Your task to perform on an android device: open app "Google Find My Device" (install if not already installed) Image 0: 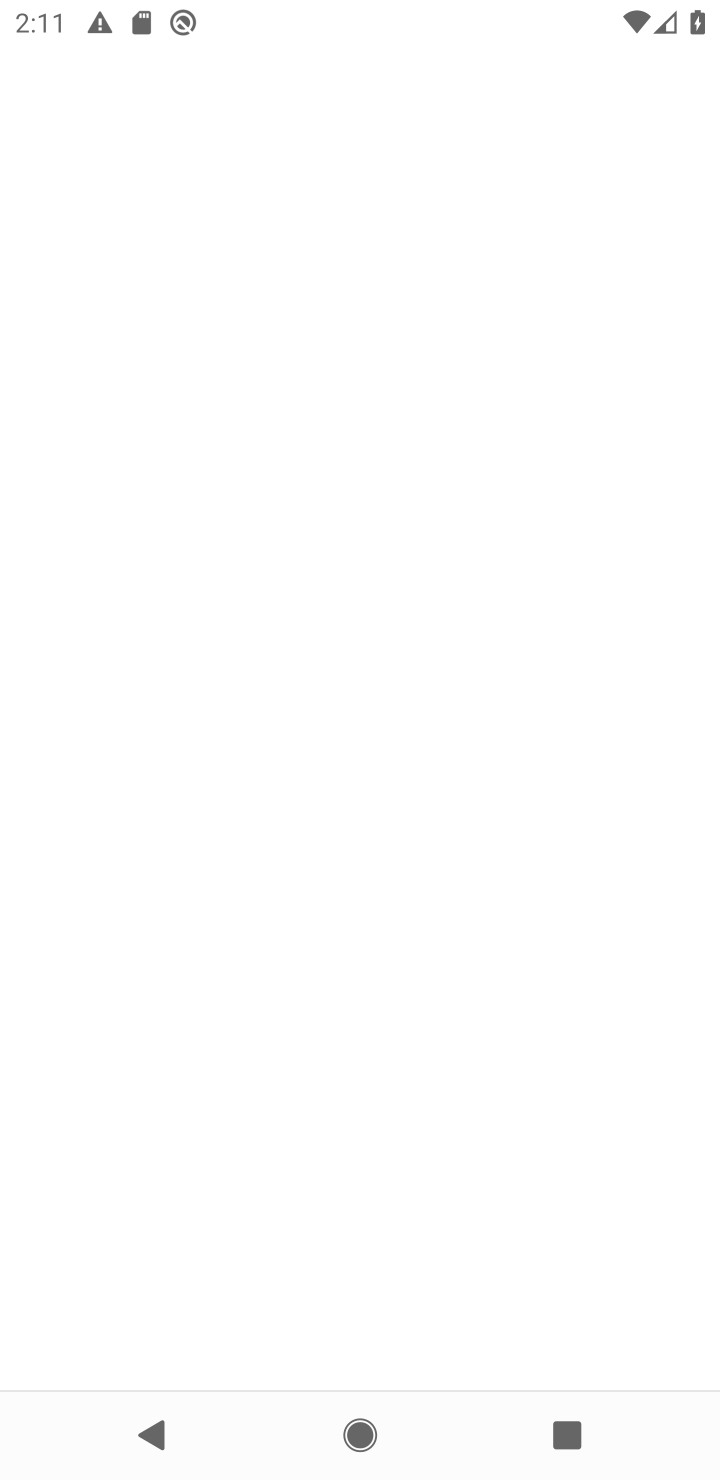
Step 0: press home button
Your task to perform on an android device: open app "Google Find My Device" (install if not already installed) Image 1: 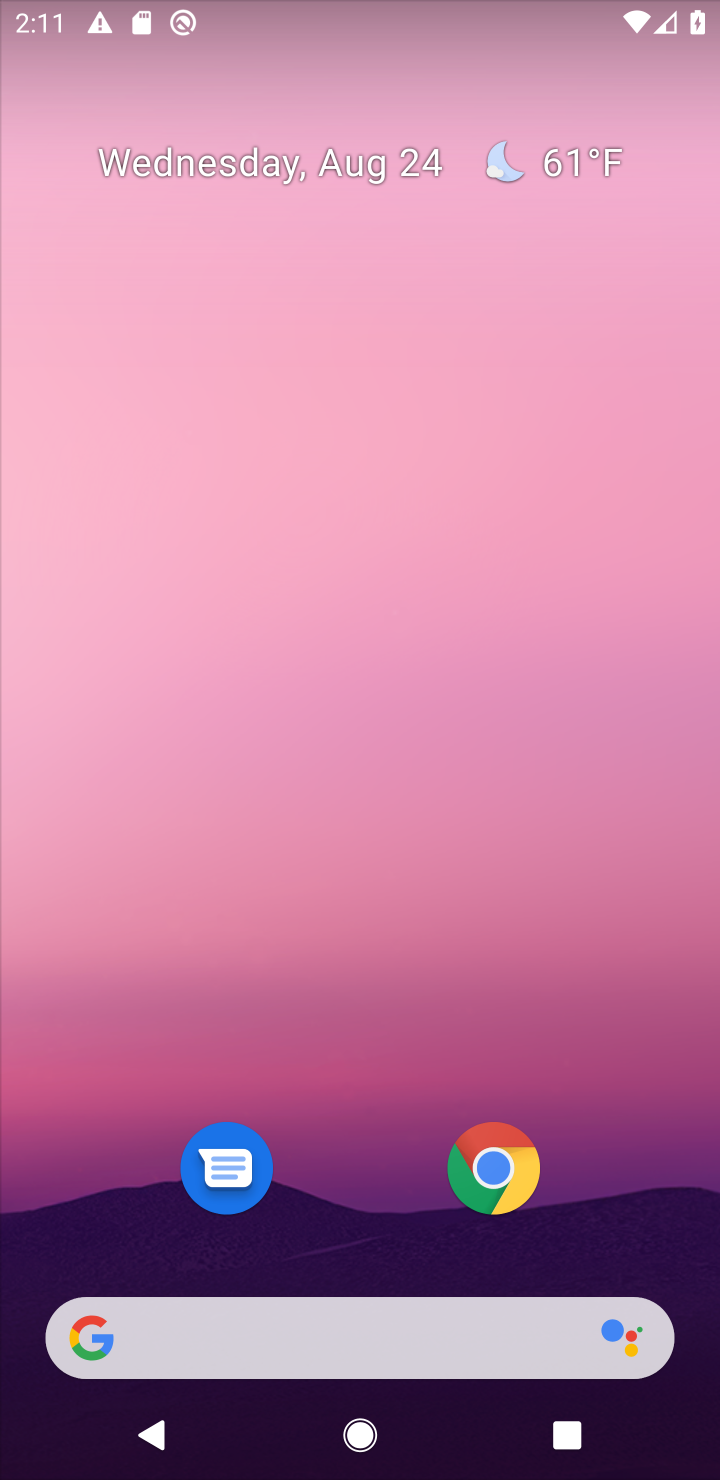
Step 1: drag from (689, 1278) to (533, 50)
Your task to perform on an android device: open app "Google Find My Device" (install if not already installed) Image 2: 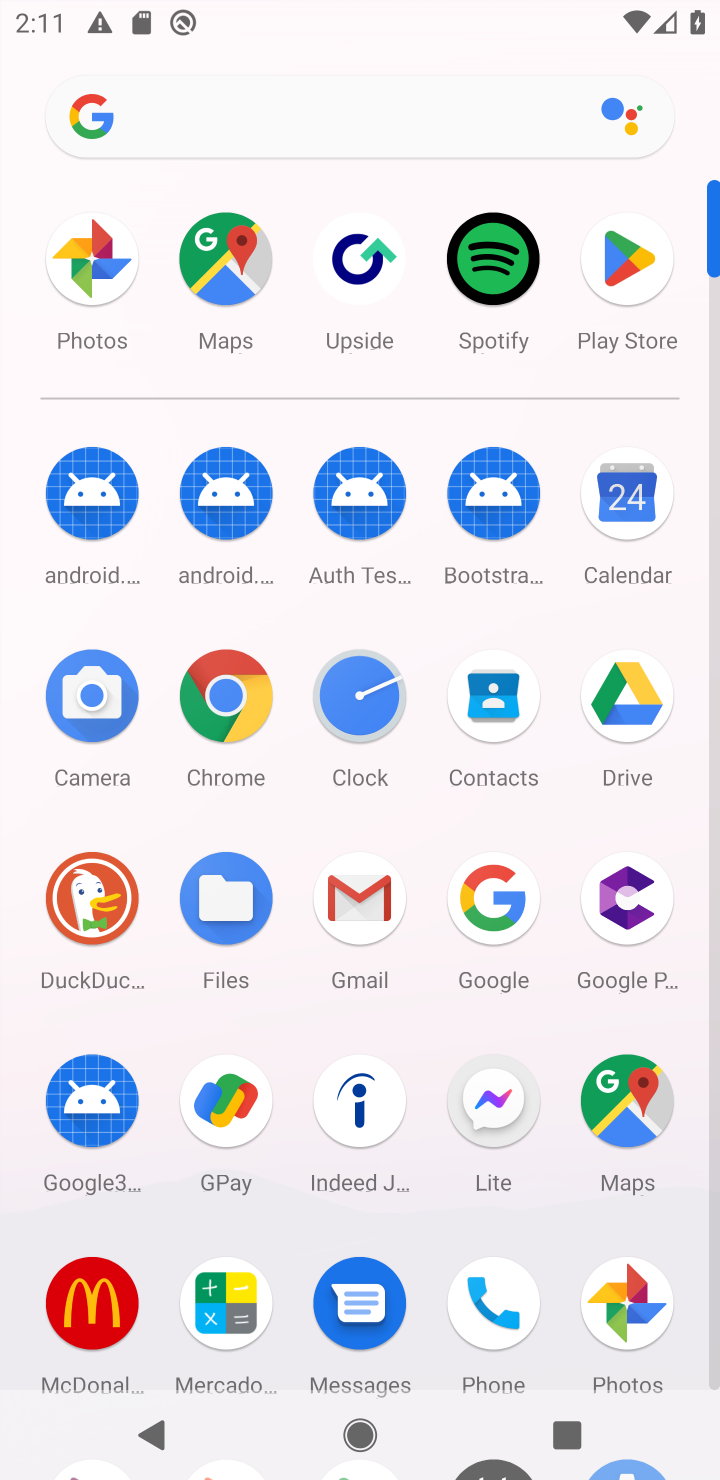
Step 2: click (718, 1313)
Your task to perform on an android device: open app "Google Find My Device" (install if not already installed) Image 3: 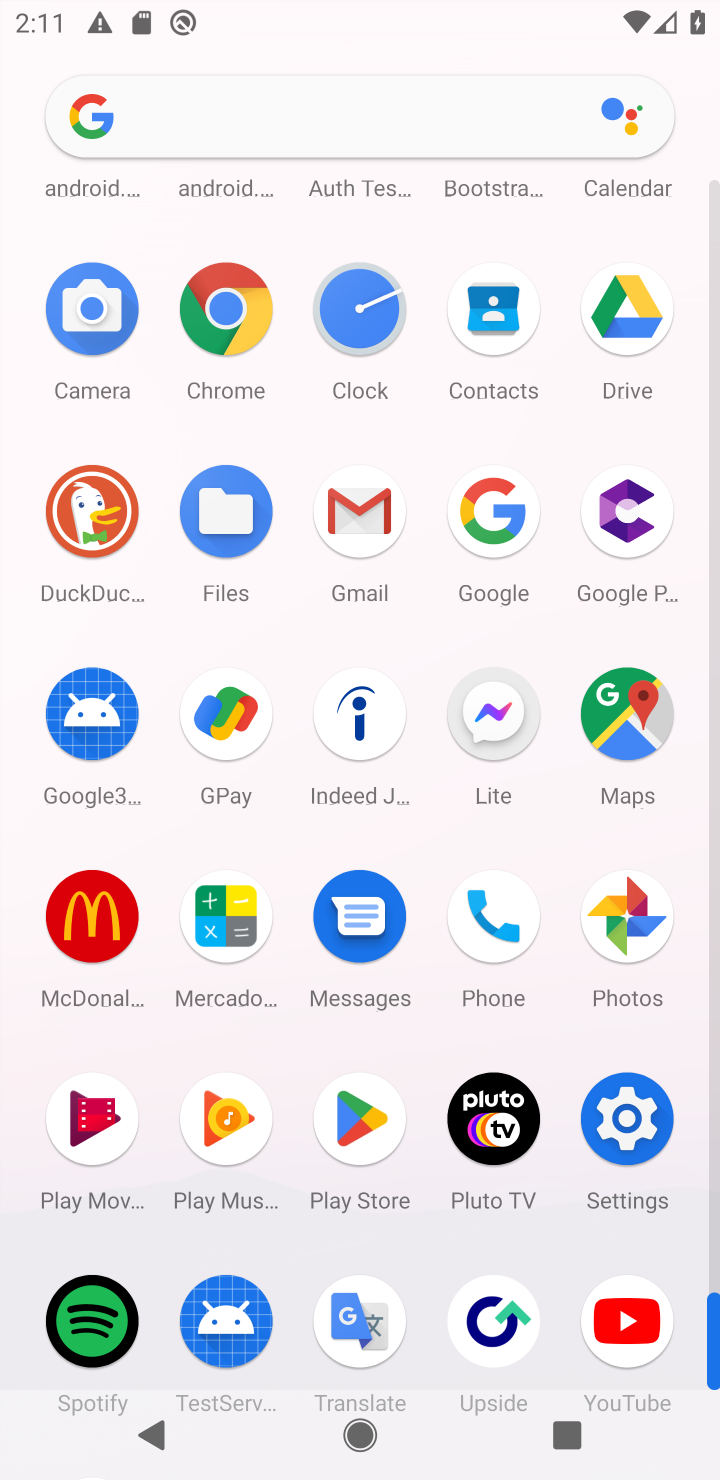
Step 3: click (366, 1116)
Your task to perform on an android device: open app "Google Find My Device" (install if not already installed) Image 4: 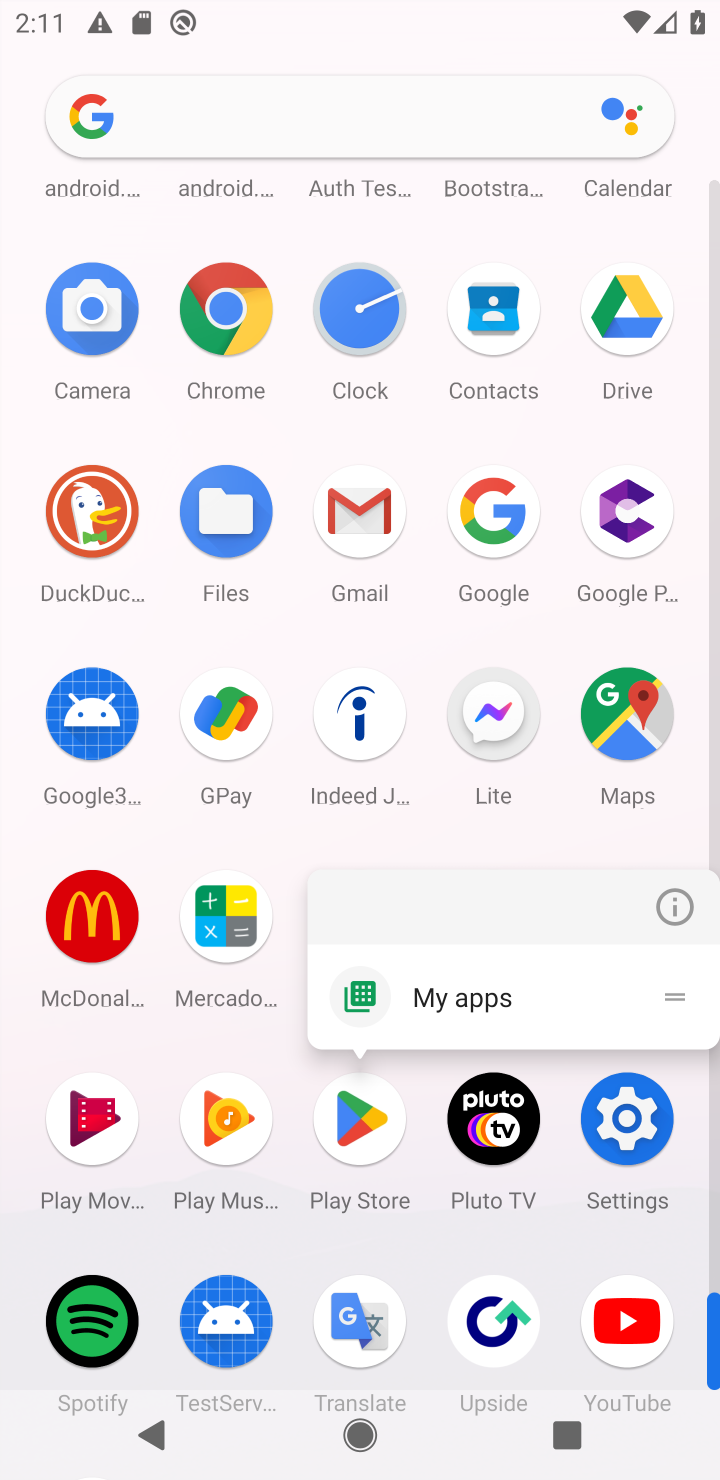
Step 4: click (364, 1114)
Your task to perform on an android device: open app "Google Find My Device" (install if not already installed) Image 5: 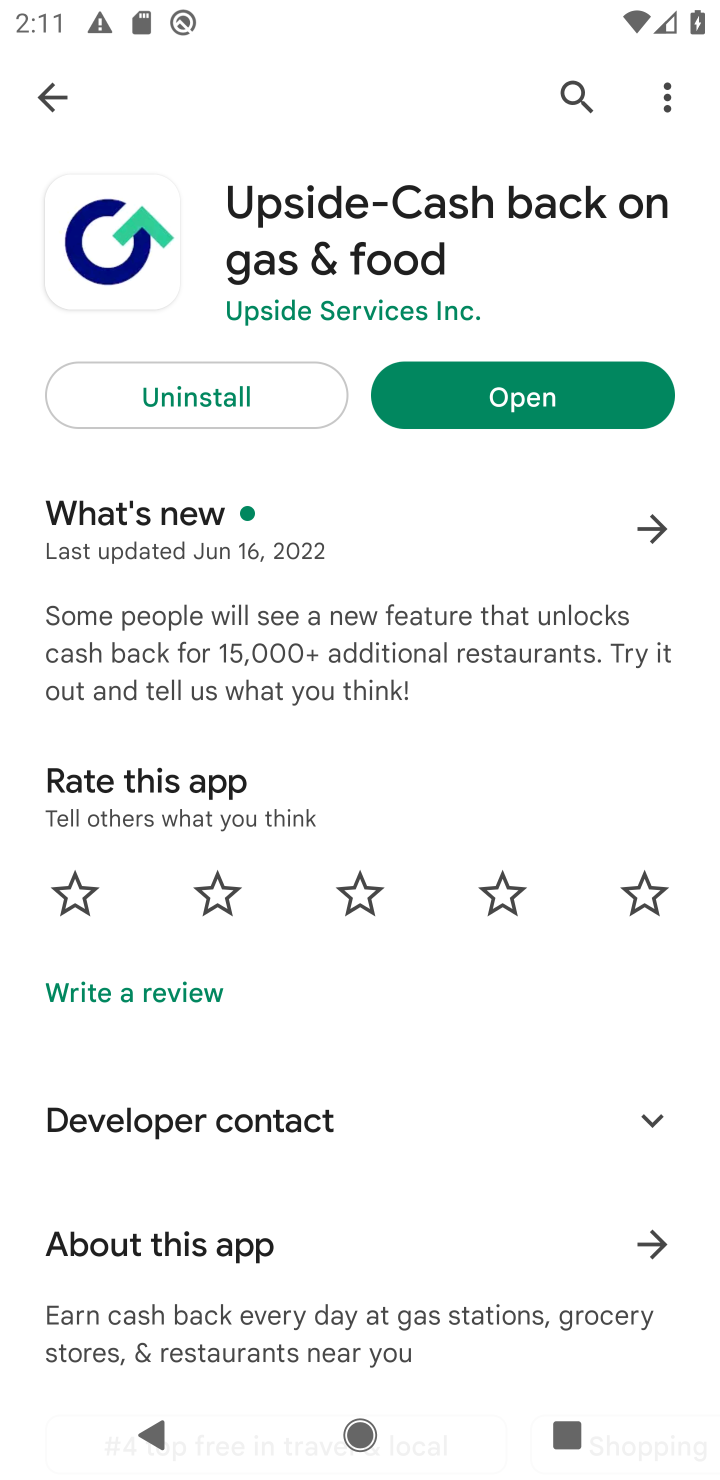
Step 5: click (576, 96)
Your task to perform on an android device: open app "Google Find My Device" (install if not already installed) Image 6: 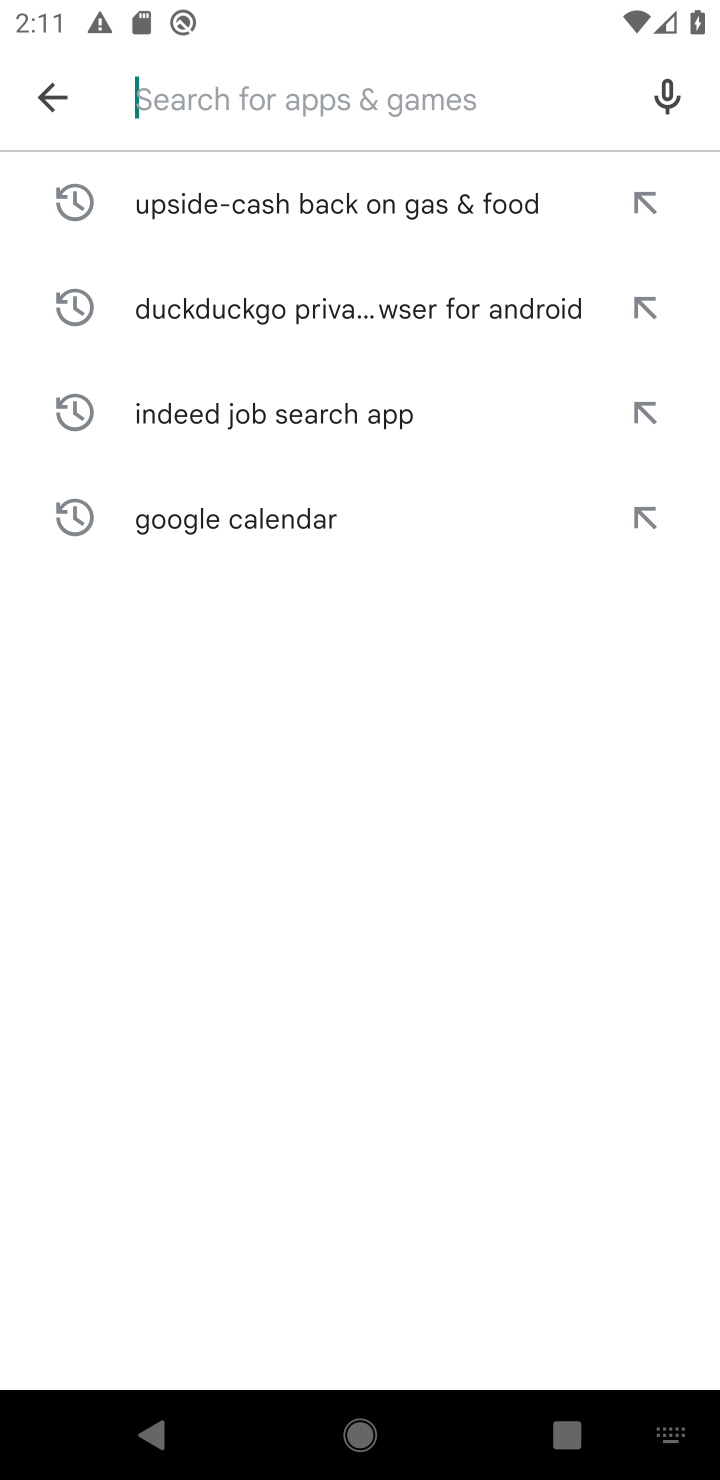
Step 6: type "Google Find My Device"
Your task to perform on an android device: open app "Google Find My Device" (install if not already installed) Image 7: 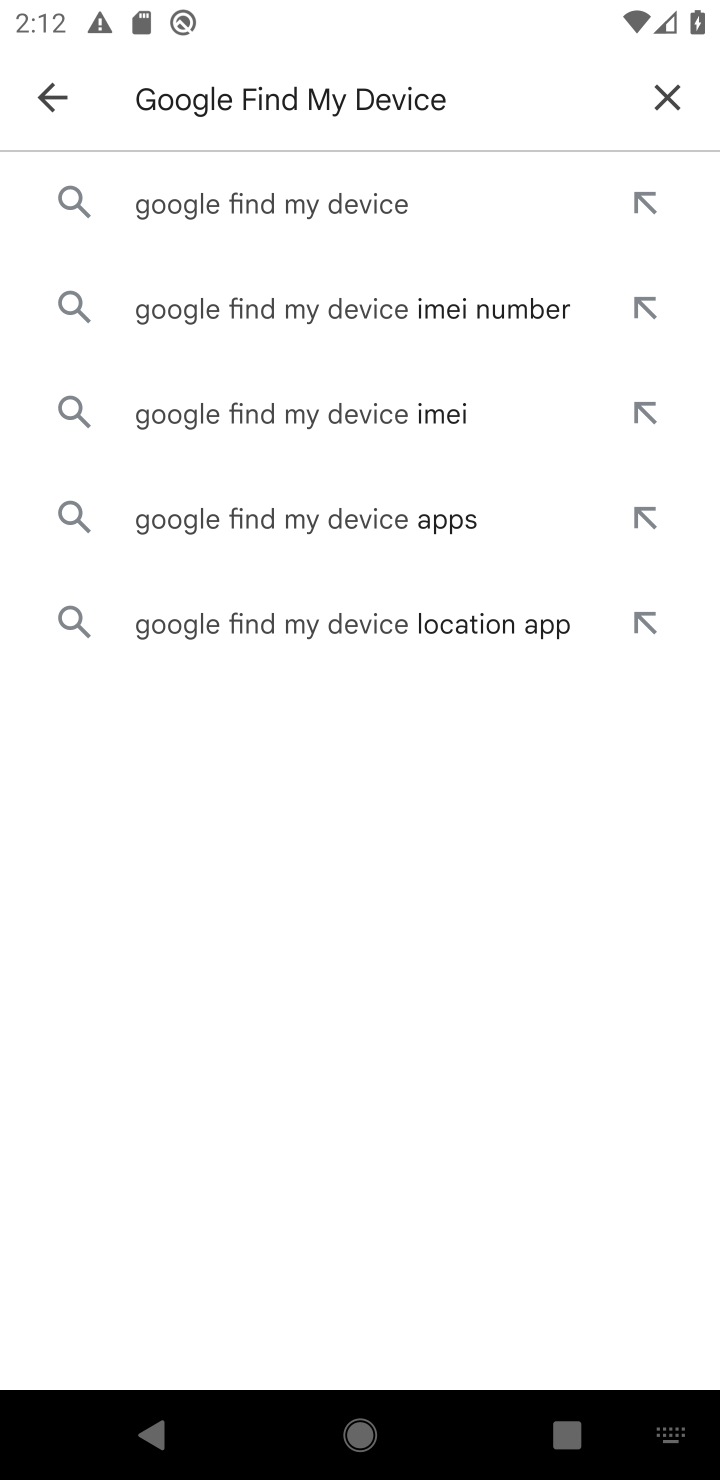
Step 7: click (213, 191)
Your task to perform on an android device: open app "Google Find My Device" (install if not already installed) Image 8: 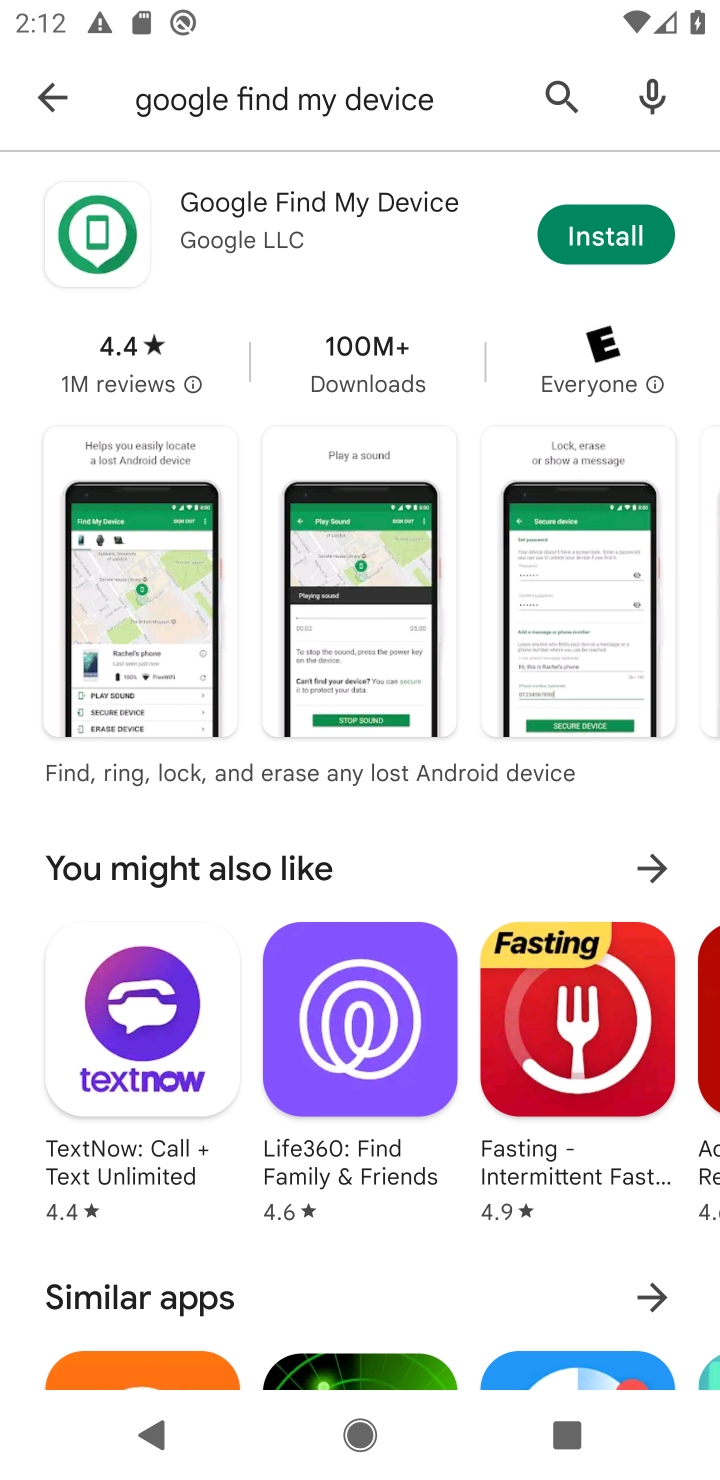
Step 8: click (215, 206)
Your task to perform on an android device: open app "Google Find My Device" (install if not already installed) Image 9: 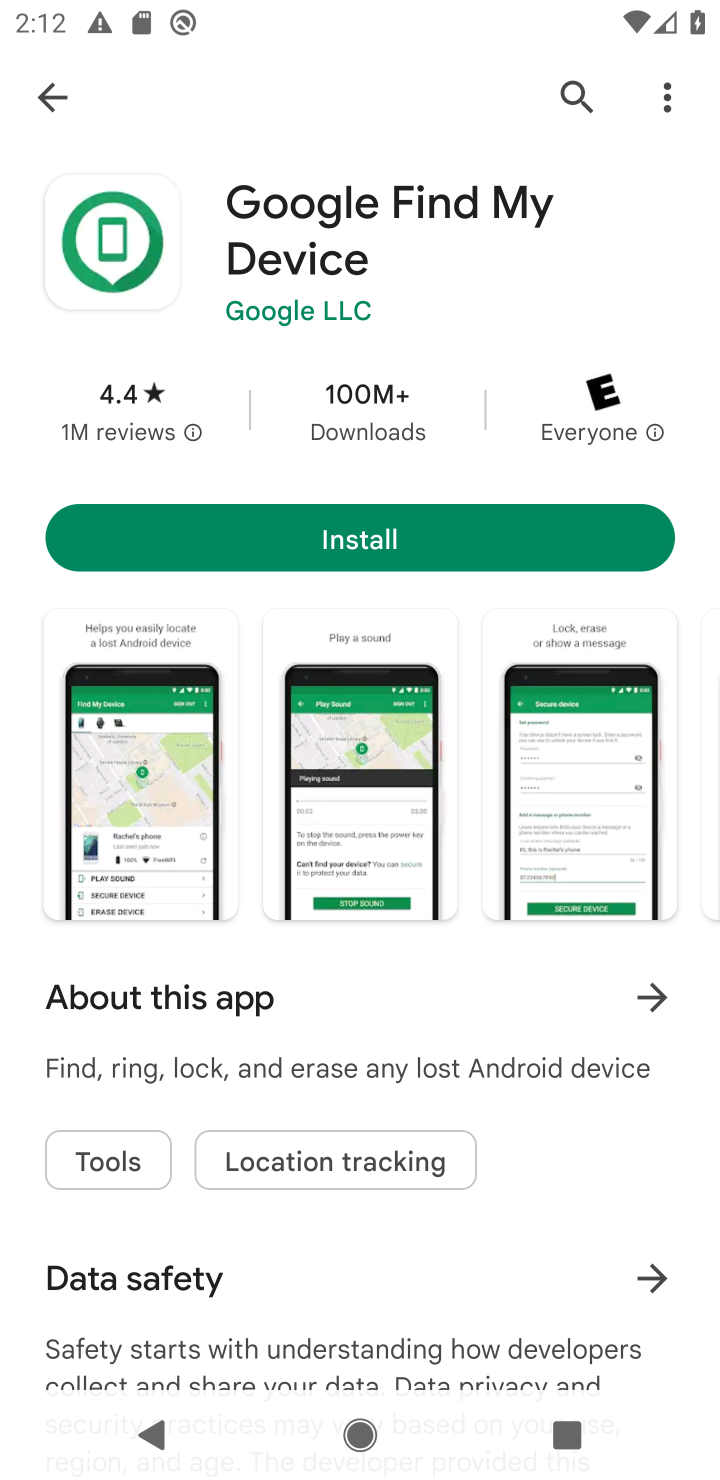
Step 9: click (361, 536)
Your task to perform on an android device: open app "Google Find My Device" (install if not already installed) Image 10: 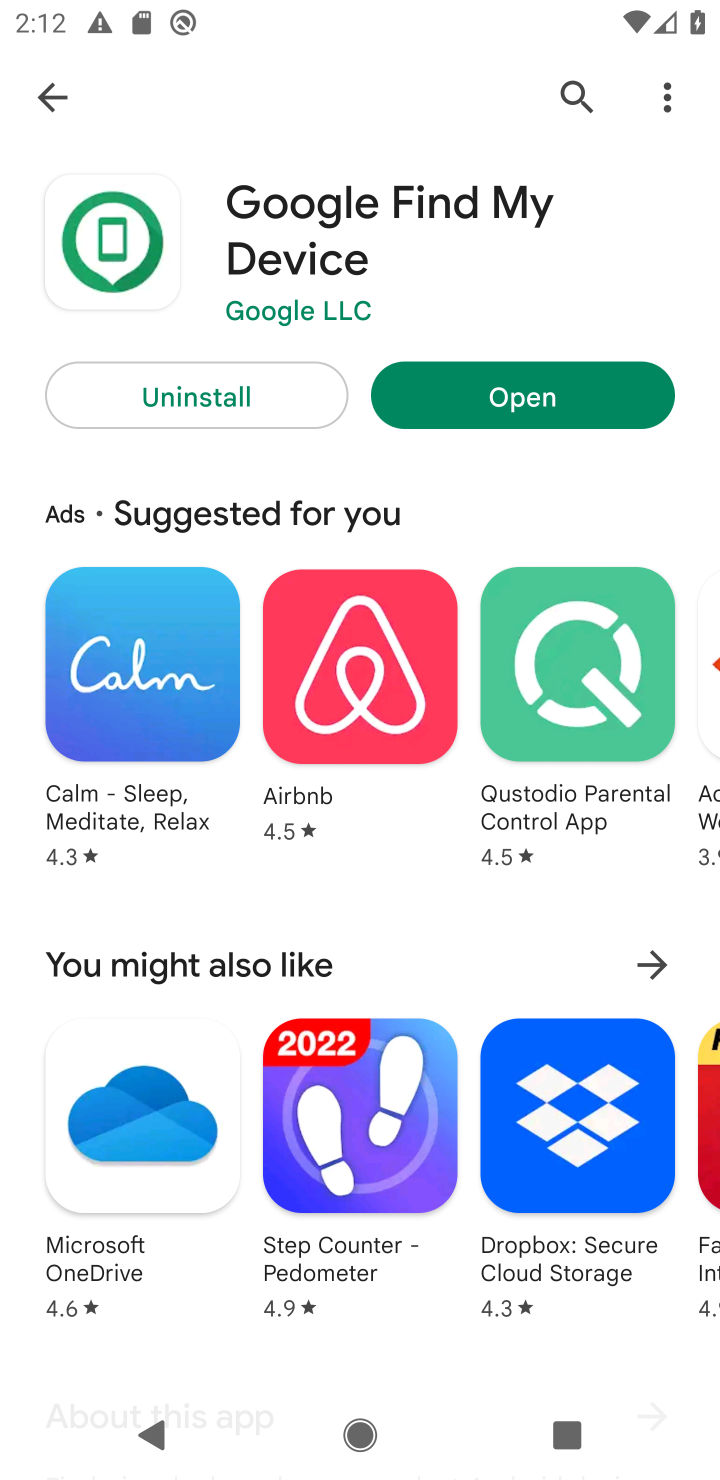
Step 10: click (499, 384)
Your task to perform on an android device: open app "Google Find My Device" (install if not already installed) Image 11: 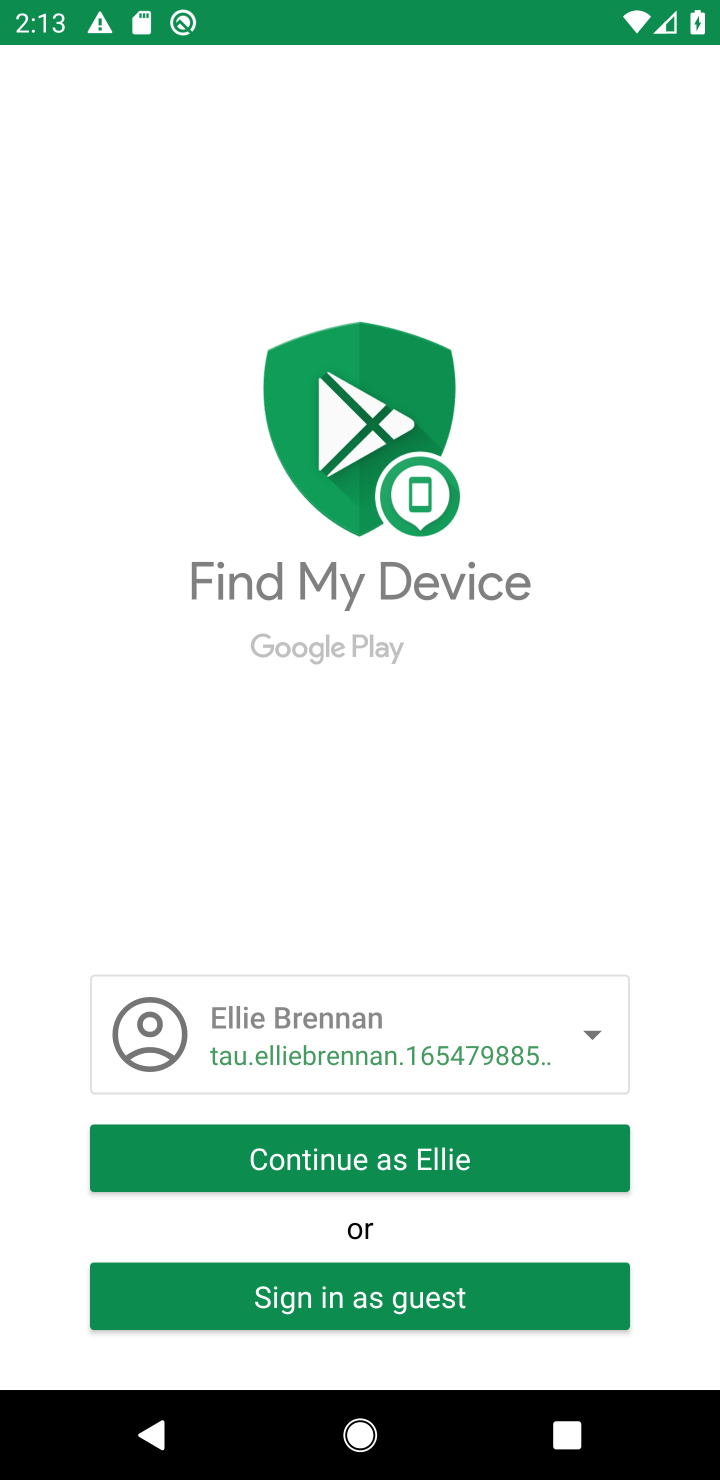
Step 11: task complete